Your task to perform on an android device: clear history in the chrome app Image 0: 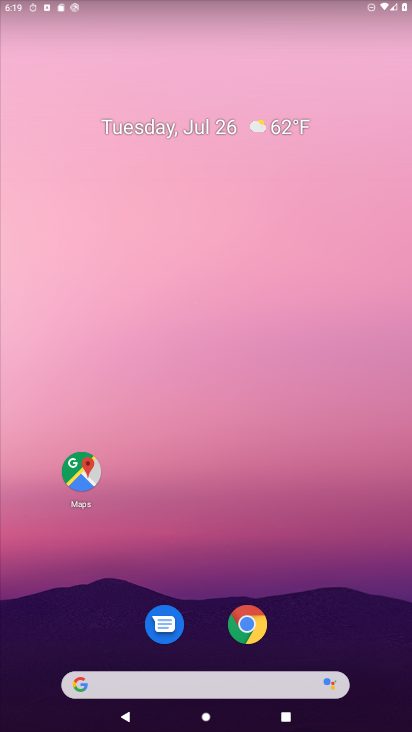
Step 0: drag from (318, 645) to (397, 1)
Your task to perform on an android device: clear history in the chrome app Image 1: 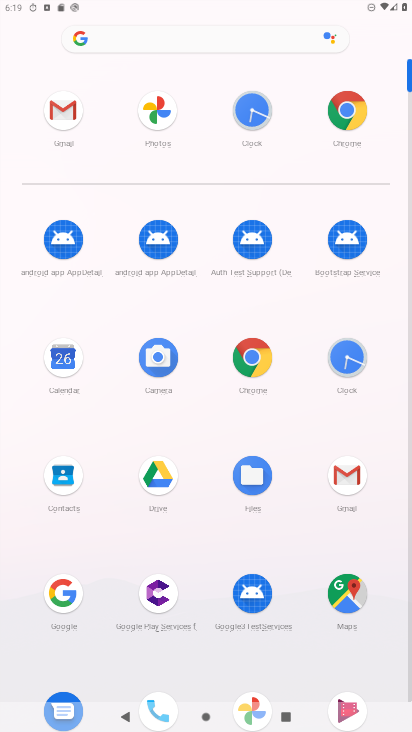
Step 1: click (260, 372)
Your task to perform on an android device: clear history in the chrome app Image 2: 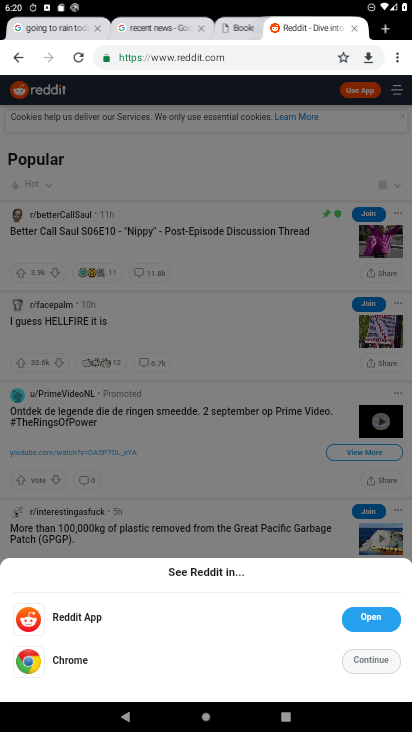
Step 2: click (393, 46)
Your task to perform on an android device: clear history in the chrome app Image 3: 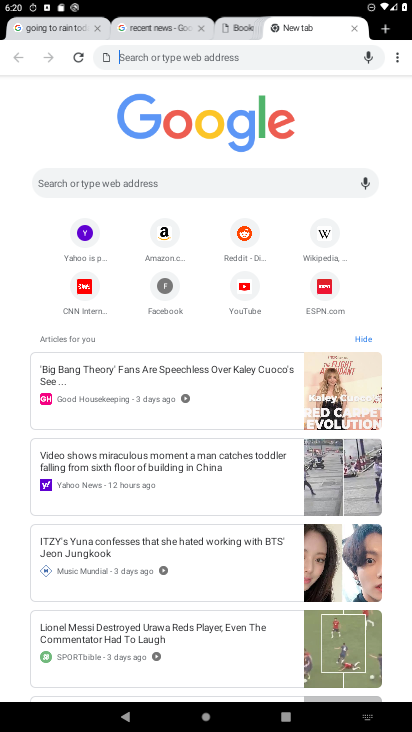
Step 3: click (395, 56)
Your task to perform on an android device: clear history in the chrome app Image 4: 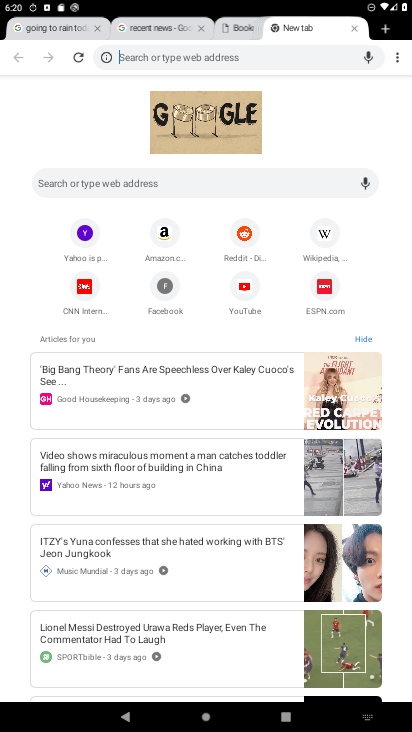
Step 4: drag from (398, 51) to (313, 172)
Your task to perform on an android device: clear history in the chrome app Image 5: 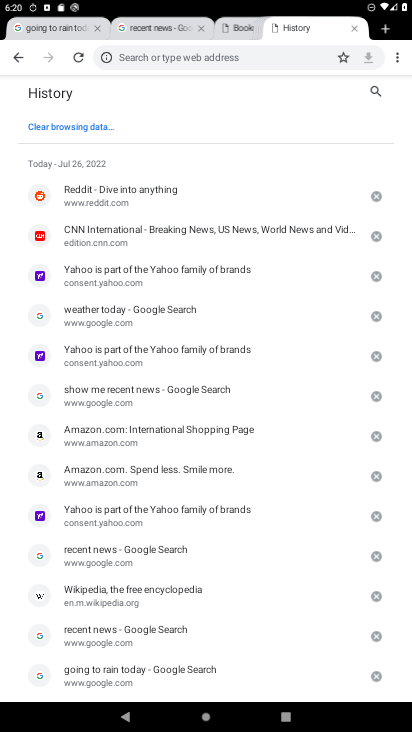
Step 5: click (88, 123)
Your task to perform on an android device: clear history in the chrome app Image 6: 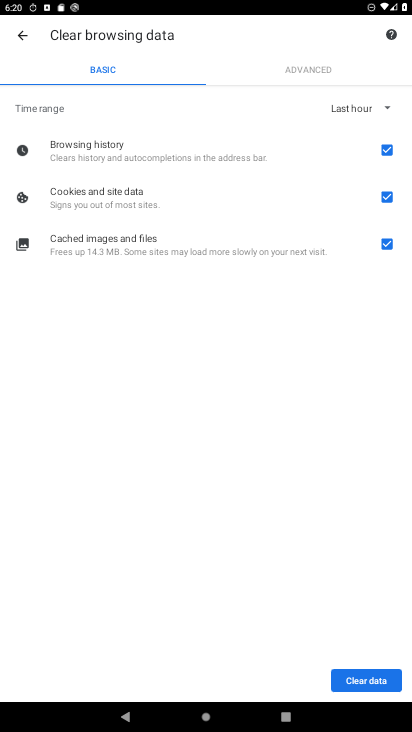
Step 6: click (340, 673)
Your task to perform on an android device: clear history in the chrome app Image 7: 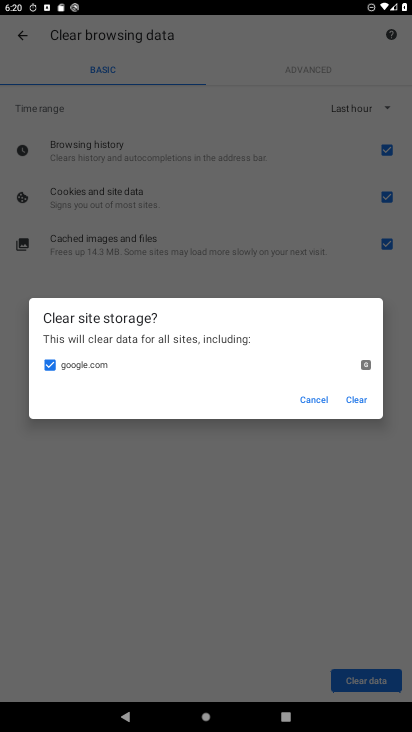
Step 7: click (365, 401)
Your task to perform on an android device: clear history in the chrome app Image 8: 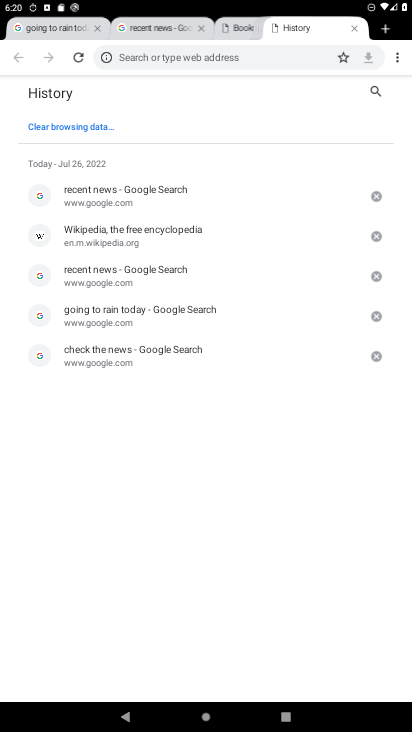
Step 8: click (70, 131)
Your task to perform on an android device: clear history in the chrome app Image 9: 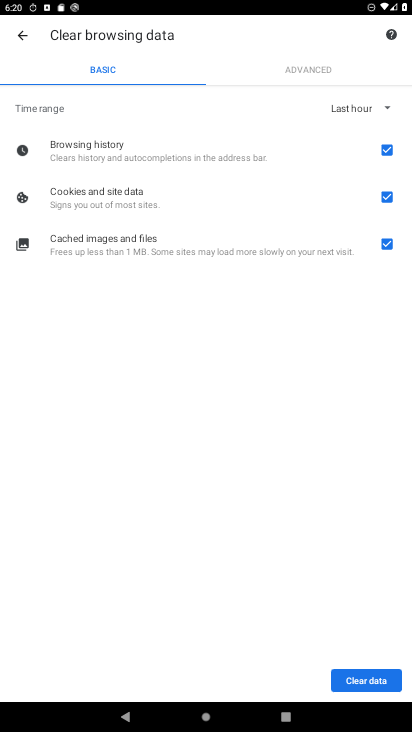
Step 9: click (383, 668)
Your task to perform on an android device: clear history in the chrome app Image 10: 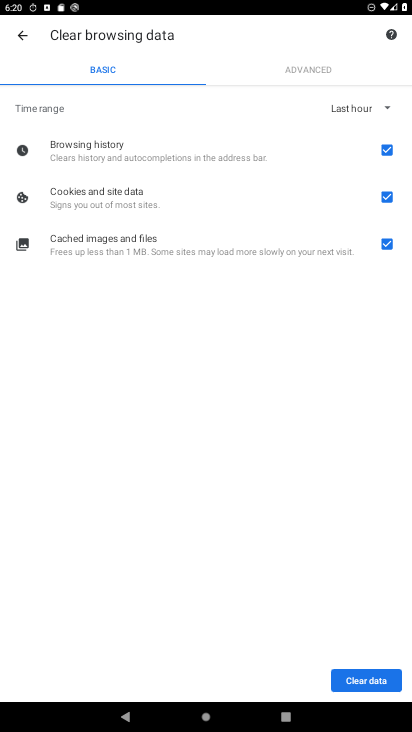
Step 10: click (364, 675)
Your task to perform on an android device: clear history in the chrome app Image 11: 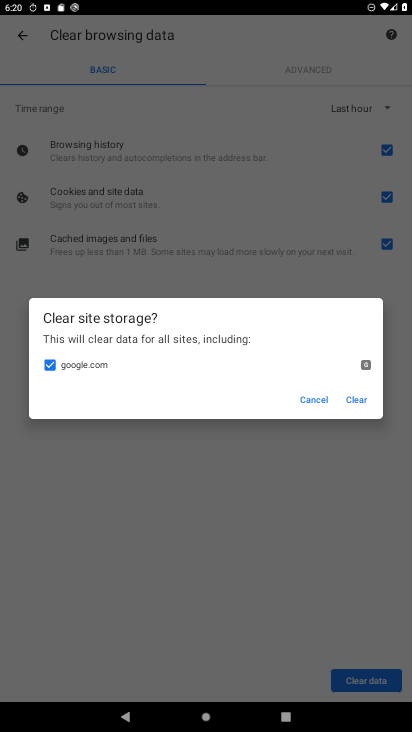
Step 11: click (363, 392)
Your task to perform on an android device: clear history in the chrome app Image 12: 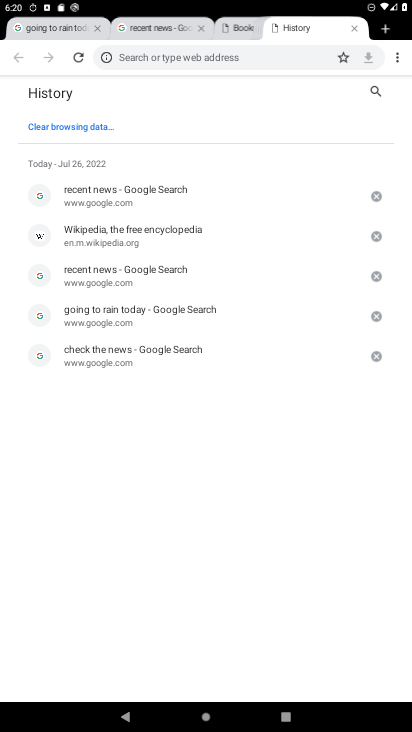
Step 12: click (62, 127)
Your task to perform on an android device: clear history in the chrome app Image 13: 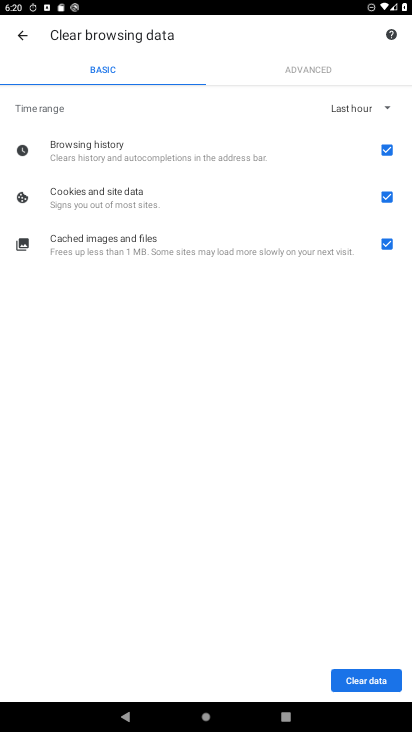
Step 13: click (395, 678)
Your task to perform on an android device: clear history in the chrome app Image 14: 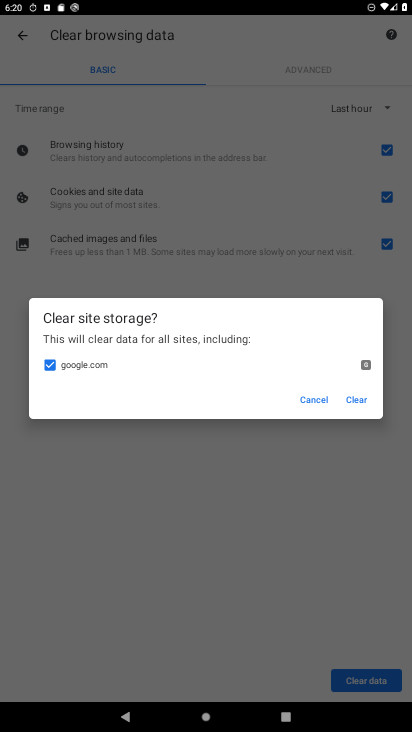
Step 14: click (361, 396)
Your task to perform on an android device: clear history in the chrome app Image 15: 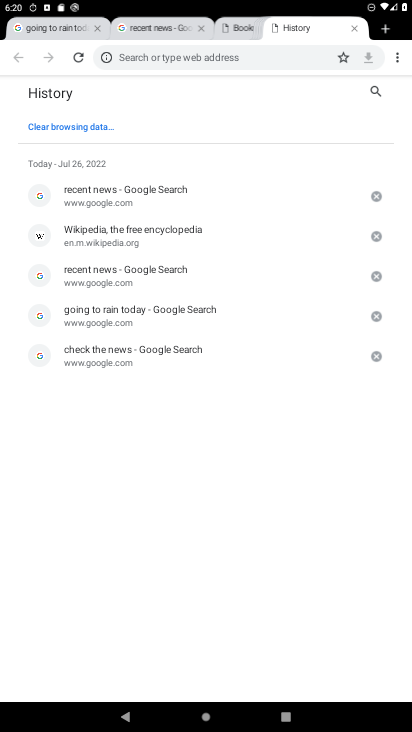
Step 15: click (374, 190)
Your task to perform on an android device: clear history in the chrome app Image 16: 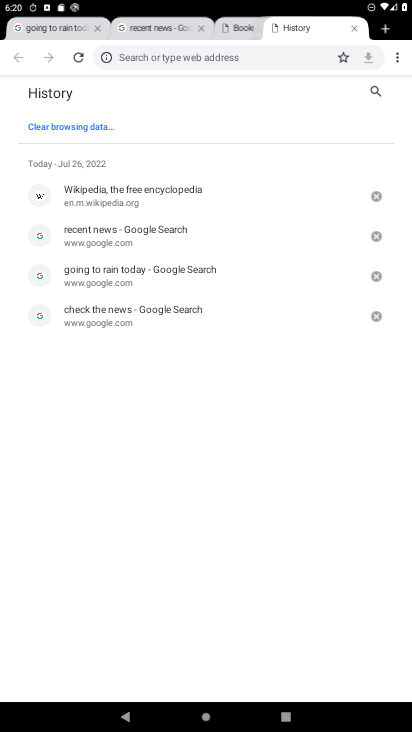
Step 16: click (380, 199)
Your task to perform on an android device: clear history in the chrome app Image 17: 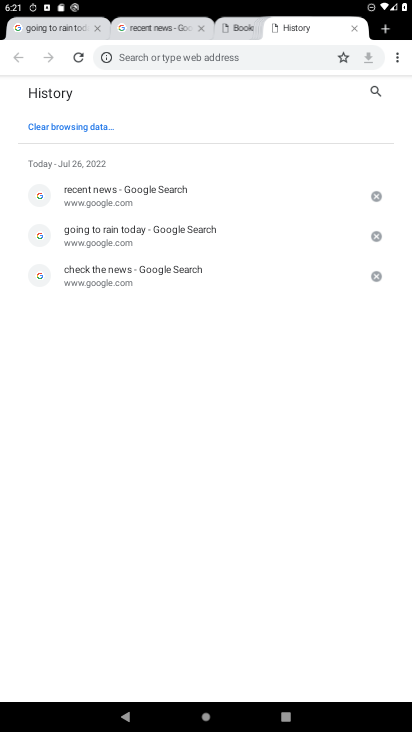
Step 17: click (373, 278)
Your task to perform on an android device: clear history in the chrome app Image 18: 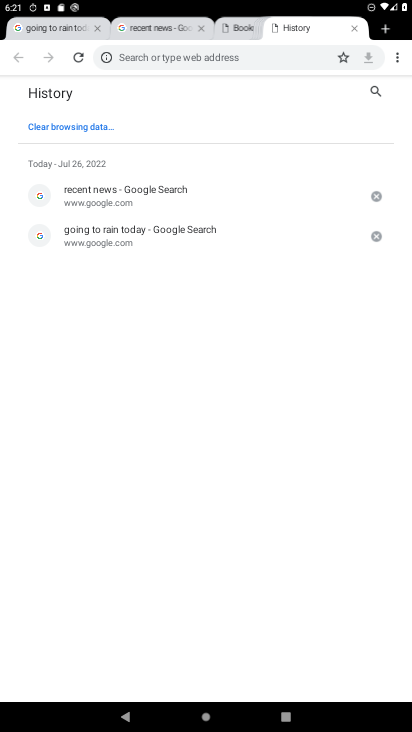
Step 18: click (375, 238)
Your task to perform on an android device: clear history in the chrome app Image 19: 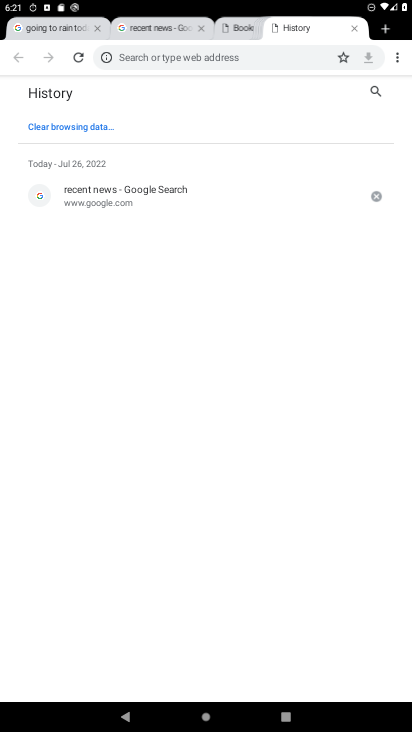
Step 19: click (378, 194)
Your task to perform on an android device: clear history in the chrome app Image 20: 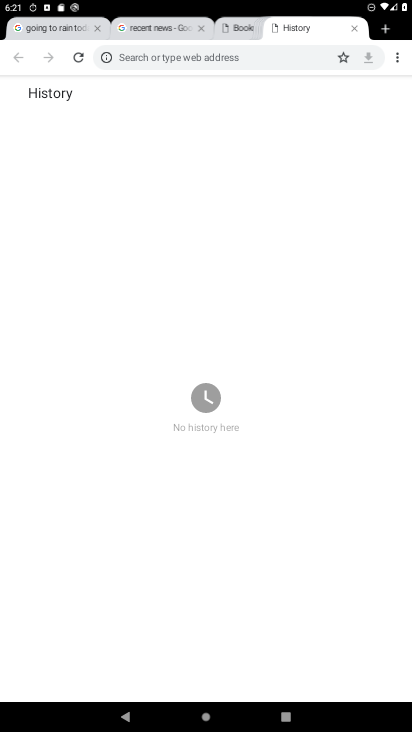
Step 20: task complete